Your task to perform on an android device: star an email in the gmail app Image 0: 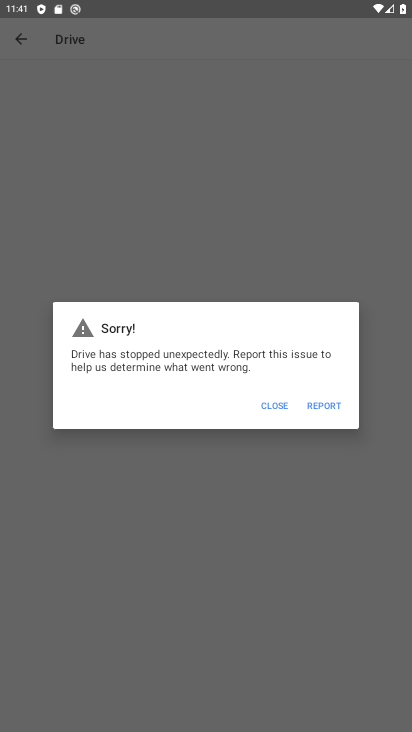
Step 0: press home button
Your task to perform on an android device: star an email in the gmail app Image 1: 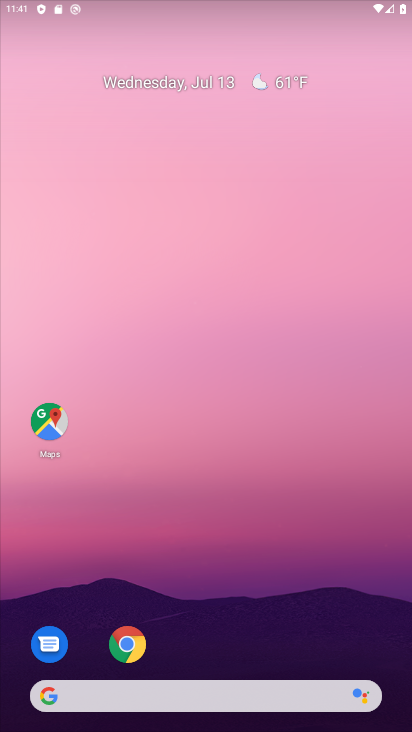
Step 1: drag from (206, 648) to (264, 114)
Your task to perform on an android device: star an email in the gmail app Image 2: 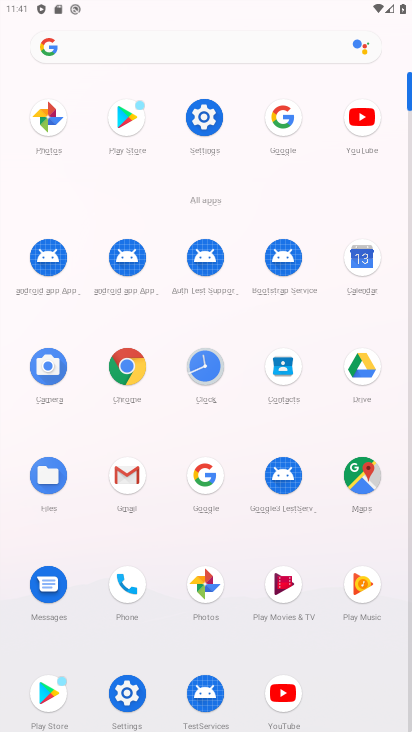
Step 2: click (127, 473)
Your task to perform on an android device: star an email in the gmail app Image 3: 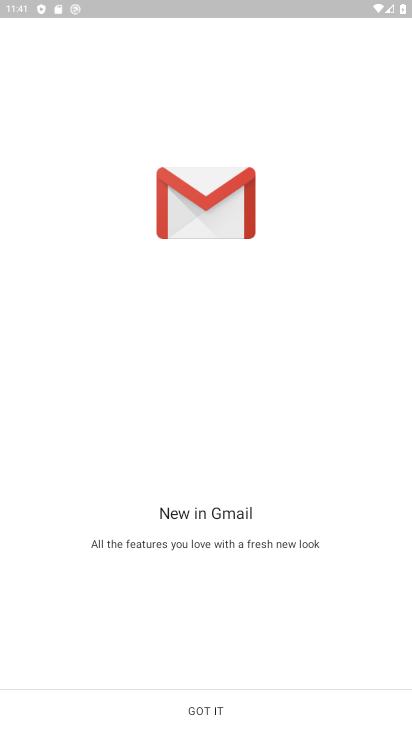
Step 3: click (225, 710)
Your task to perform on an android device: star an email in the gmail app Image 4: 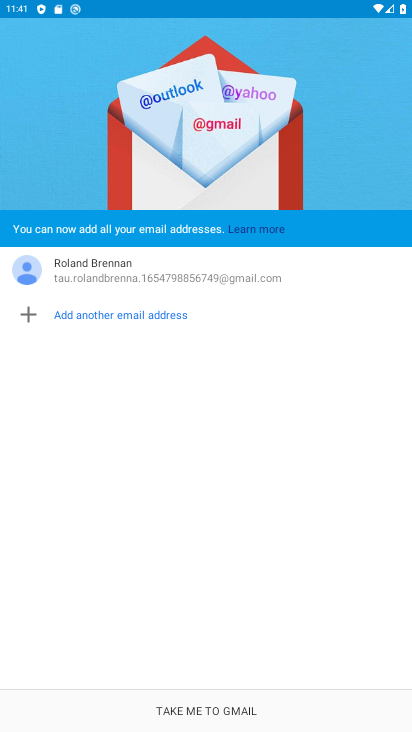
Step 4: click (219, 704)
Your task to perform on an android device: star an email in the gmail app Image 5: 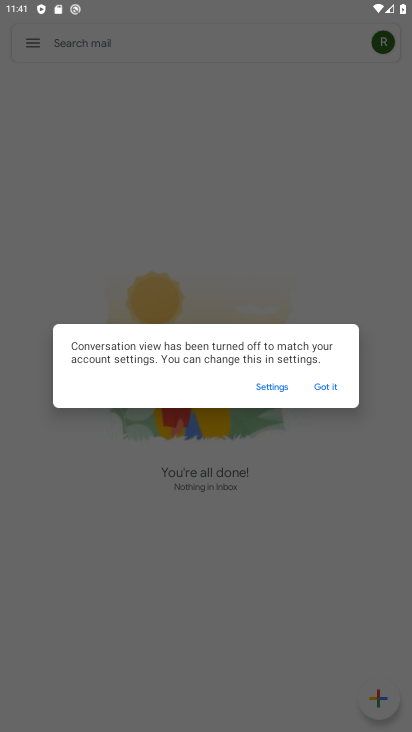
Step 5: click (322, 389)
Your task to perform on an android device: star an email in the gmail app Image 6: 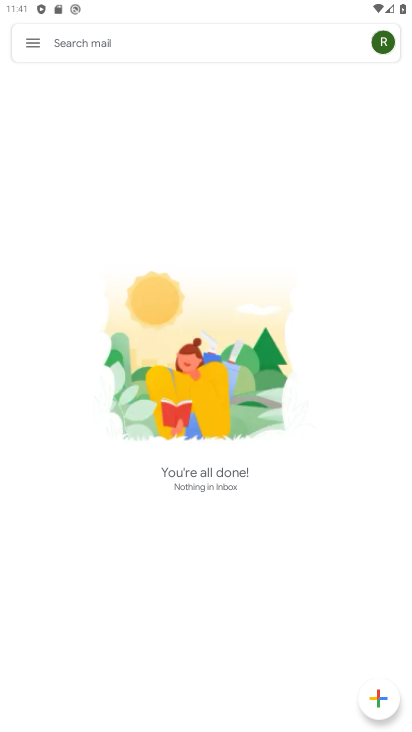
Step 6: click (25, 46)
Your task to perform on an android device: star an email in the gmail app Image 7: 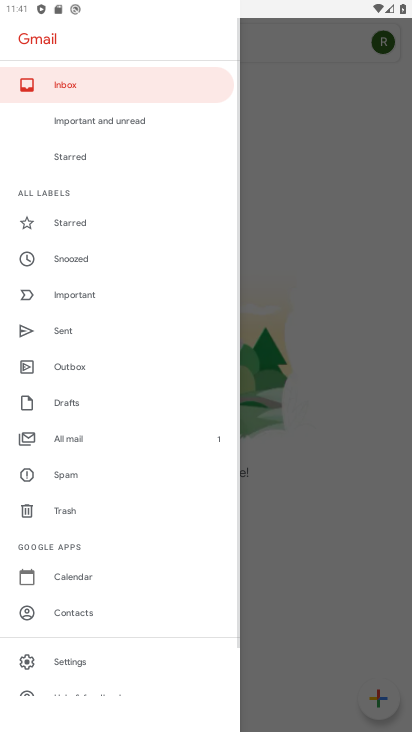
Step 7: click (74, 427)
Your task to perform on an android device: star an email in the gmail app Image 8: 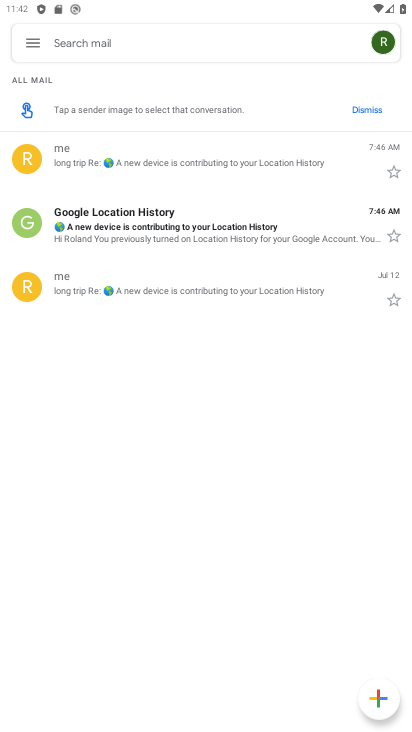
Step 8: click (391, 172)
Your task to perform on an android device: star an email in the gmail app Image 9: 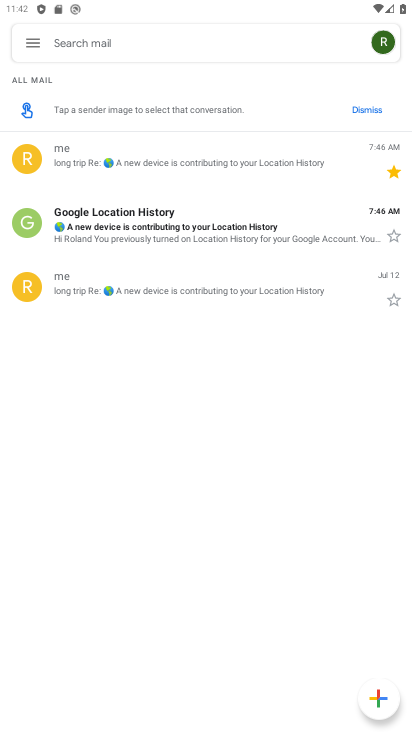
Step 9: task complete